Your task to perform on an android device: turn on priority inbox in the gmail app Image 0: 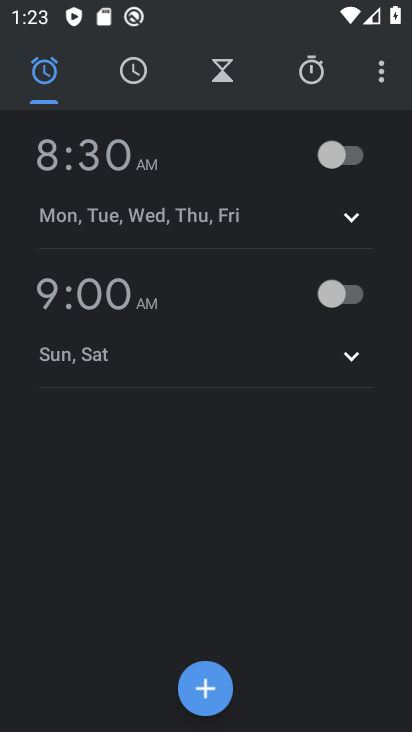
Step 0: press home button
Your task to perform on an android device: turn on priority inbox in the gmail app Image 1: 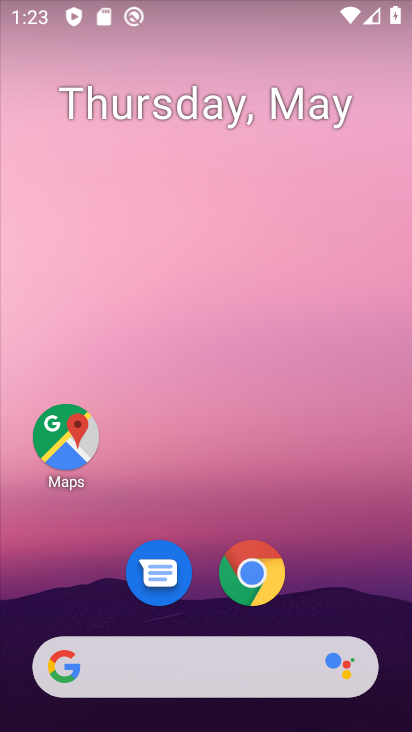
Step 1: drag from (354, 597) to (349, 67)
Your task to perform on an android device: turn on priority inbox in the gmail app Image 2: 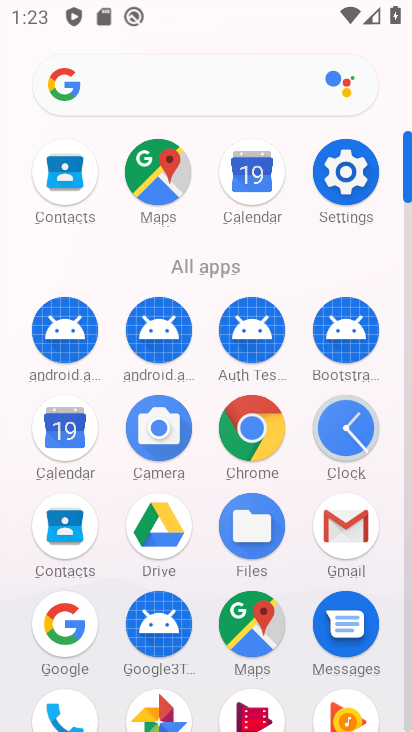
Step 2: click (347, 531)
Your task to perform on an android device: turn on priority inbox in the gmail app Image 3: 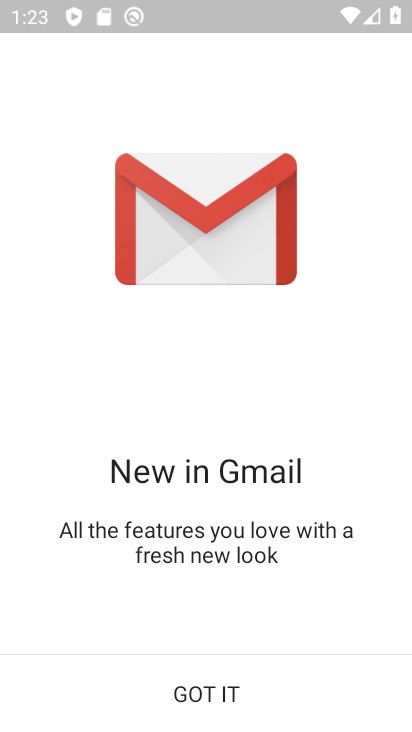
Step 3: click (218, 701)
Your task to perform on an android device: turn on priority inbox in the gmail app Image 4: 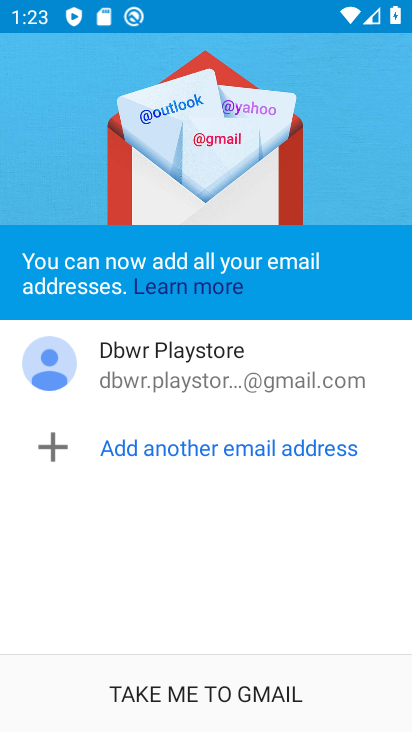
Step 4: click (218, 699)
Your task to perform on an android device: turn on priority inbox in the gmail app Image 5: 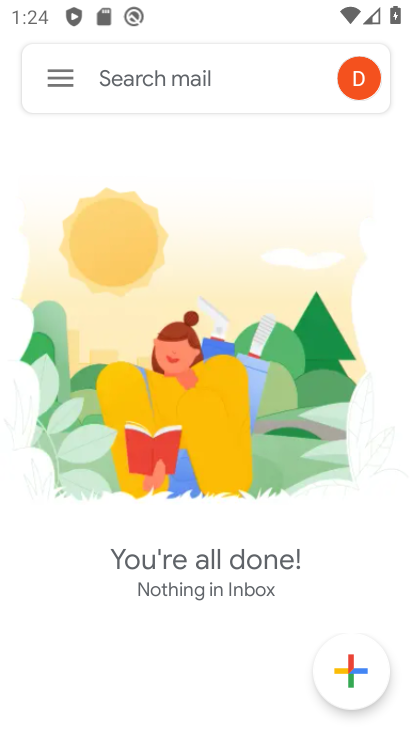
Step 5: click (49, 79)
Your task to perform on an android device: turn on priority inbox in the gmail app Image 6: 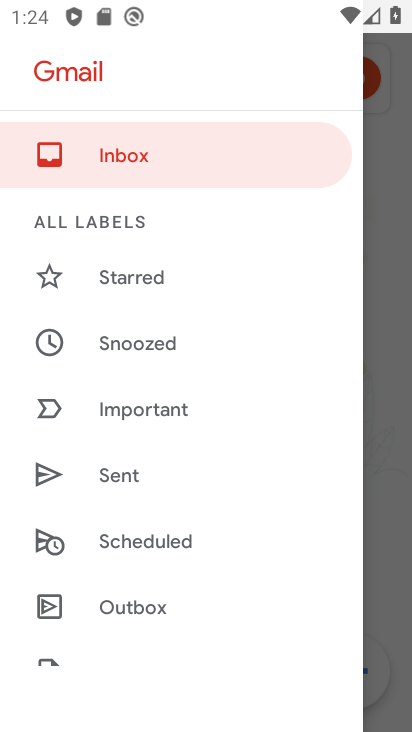
Step 6: drag from (224, 643) to (225, 22)
Your task to perform on an android device: turn on priority inbox in the gmail app Image 7: 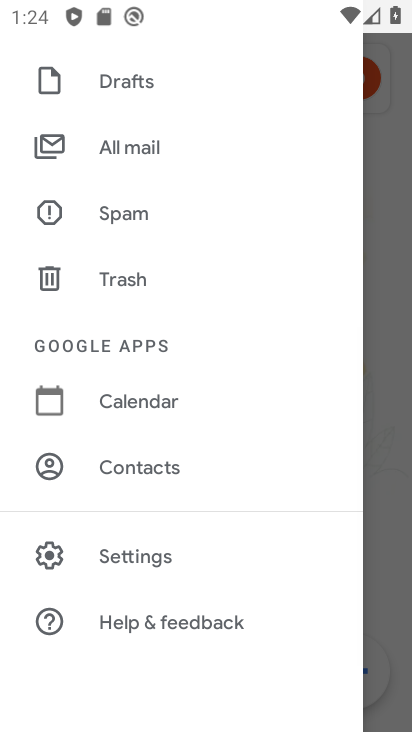
Step 7: click (117, 558)
Your task to perform on an android device: turn on priority inbox in the gmail app Image 8: 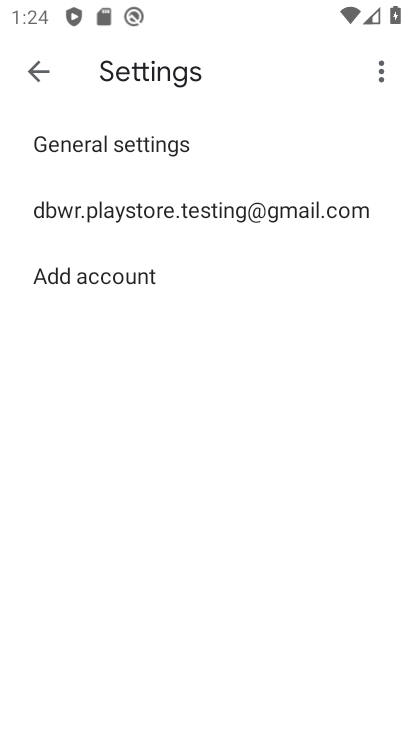
Step 8: click (200, 216)
Your task to perform on an android device: turn on priority inbox in the gmail app Image 9: 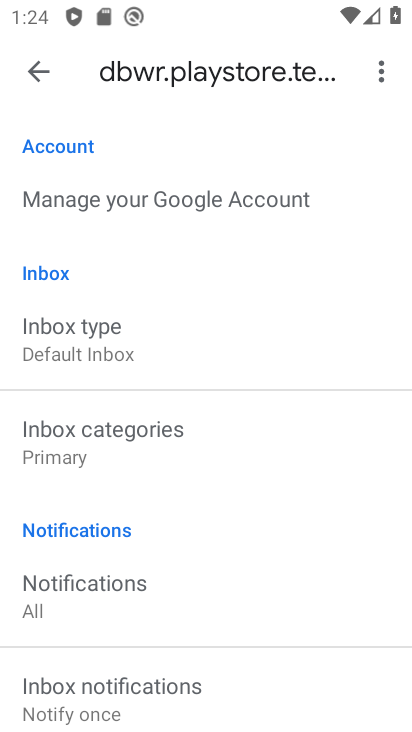
Step 9: click (66, 326)
Your task to perform on an android device: turn on priority inbox in the gmail app Image 10: 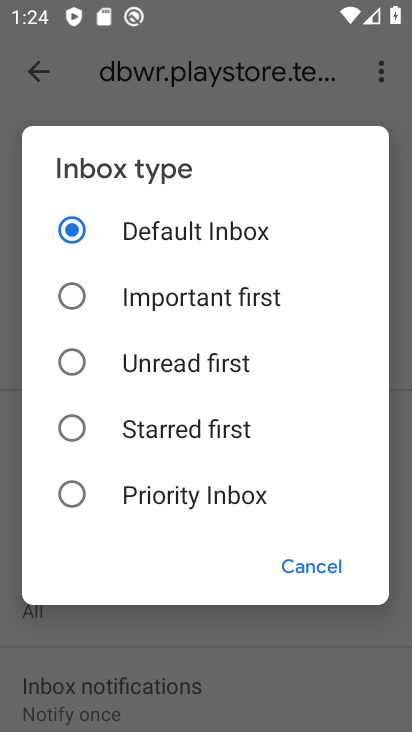
Step 10: click (215, 495)
Your task to perform on an android device: turn on priority inbox in the gmail app Image 11: 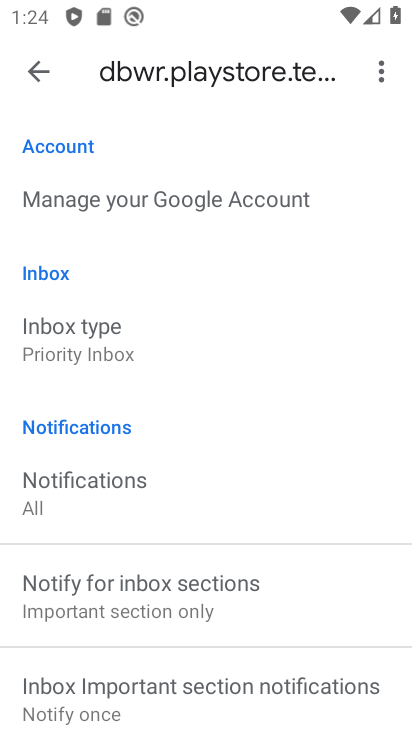
Step 11: task complete